Your task to perform on an android device: Search for Italian restaurants on Maps Image 0: 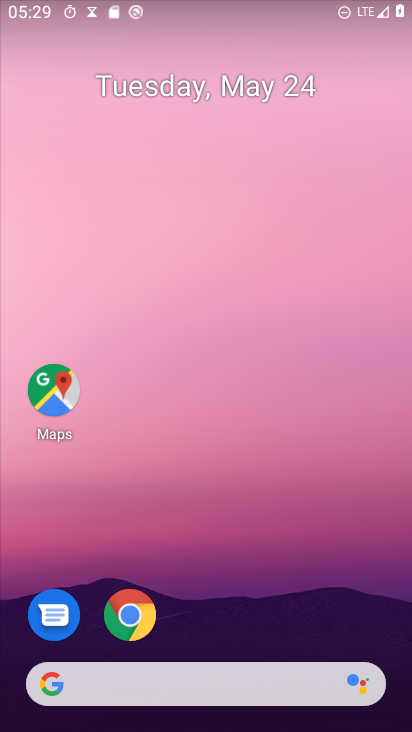
Step 0: click (53, 394)
Your task to perform on an android device: Search for Italian restaurants on Maps Image 1: 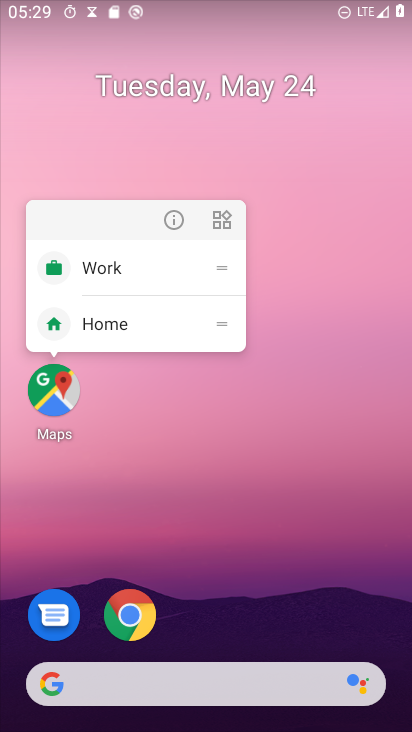
Step 1: click (39, 366)
Your task to perform on an android device: Search for Italian restaurants on Maps Image 2: 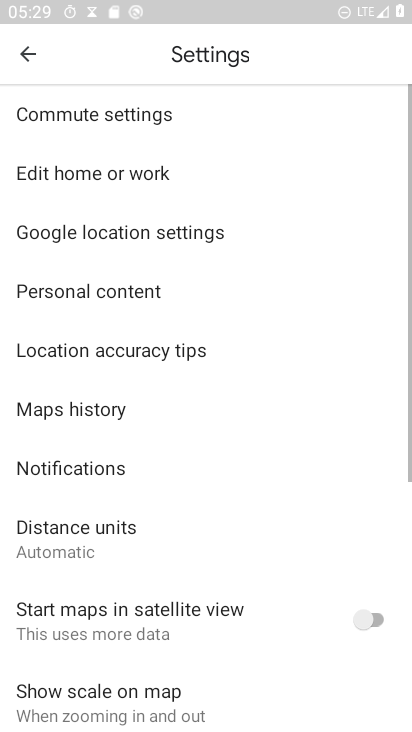
Step 2: click (16, 49)
Your task to perform on an android device: Search for Italian restaurants on Maps Image 3: 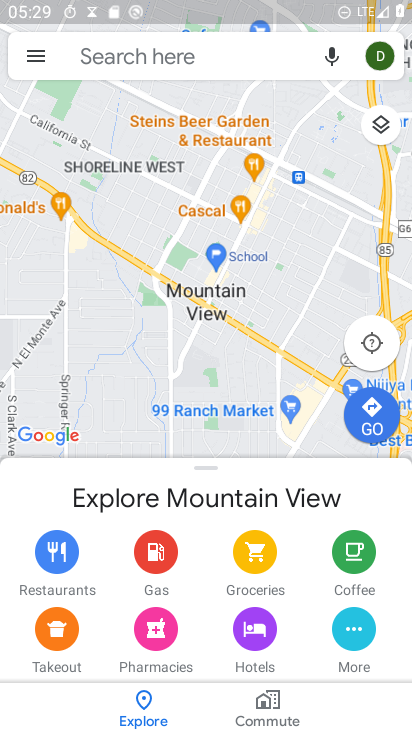
Step 3: click (127, 68)
Your task to perform on an android device: Search for Italian restaurants on Maps Image 4: 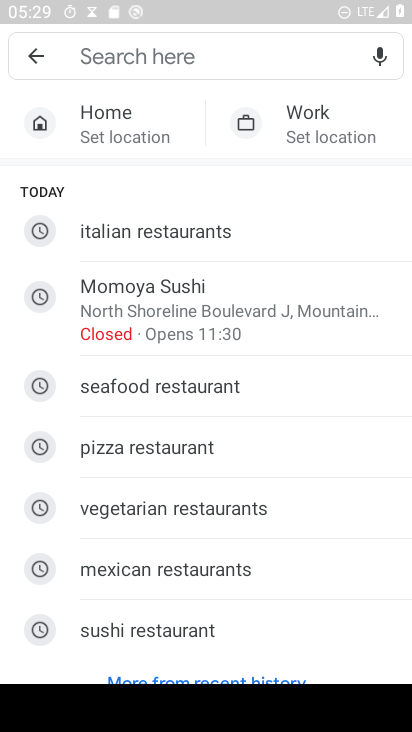
Step 4: click (148, 225)
Your task to perform on an android device: Search for Italian restaurants on Maps Image 5: 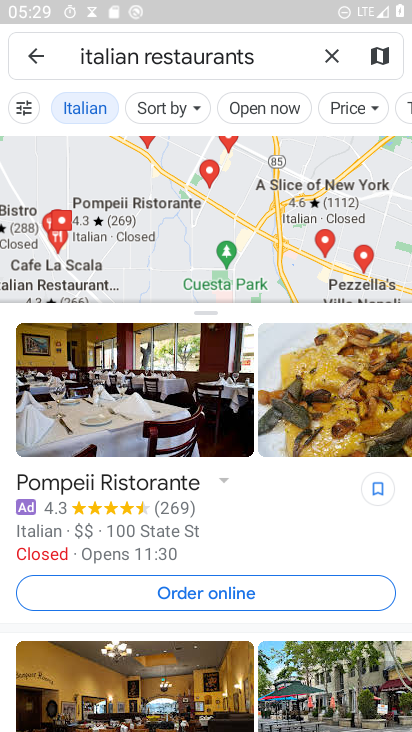
Step 5: task complete